Your task to perform on an android device: Open Wikipedia Image 0: 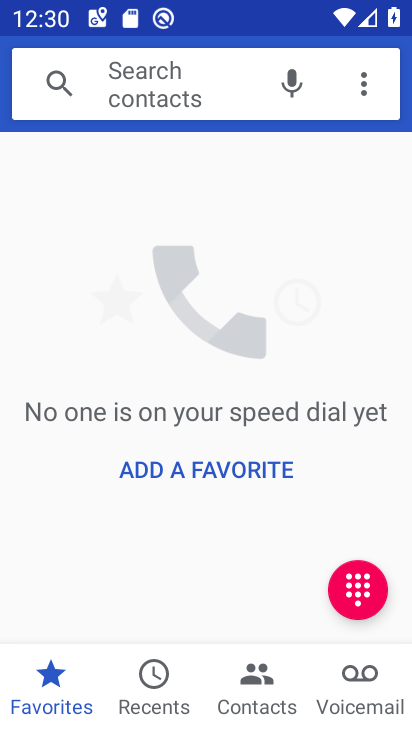
Step 0: press home button
Your task to perform on an android device: Open Wikipedia Image 1: 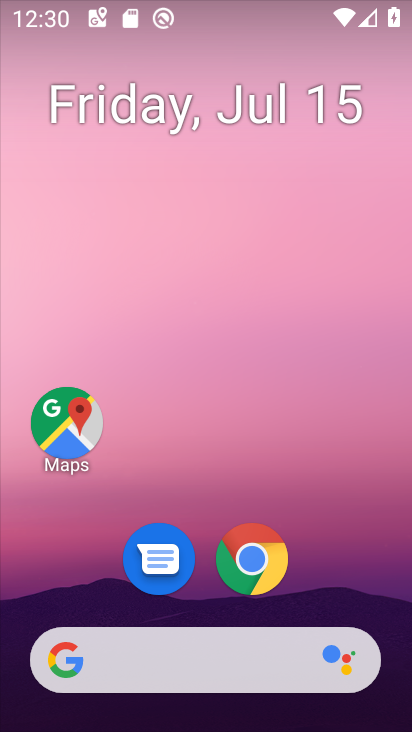
Step 1: drag from (340, 581) to (368, 200)
Your task to perform on an android device: Open Wikipedia Image 2: 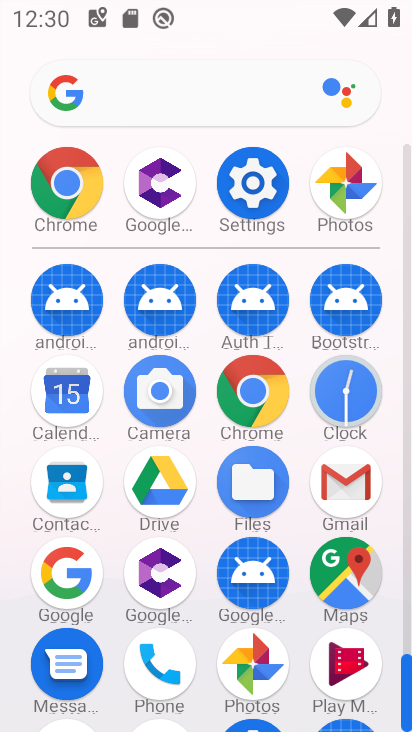
Step 2: click (275, 394)
Your task to perform on an android device: Open Wikipedia Image 3: 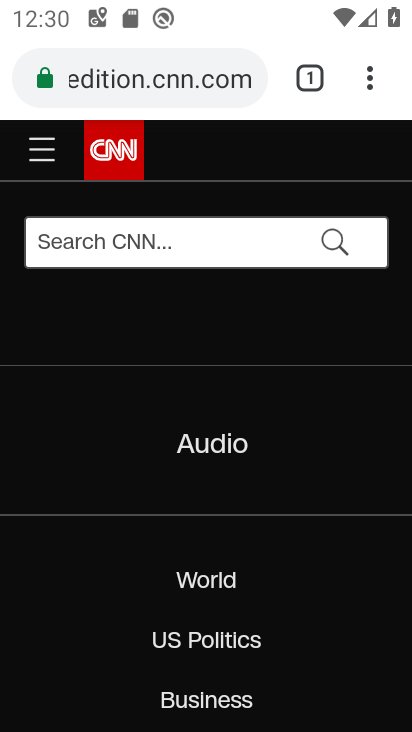
Step 3: click (213, 96)
Your task to perform on an android device: Open Wikipedia Image 4: 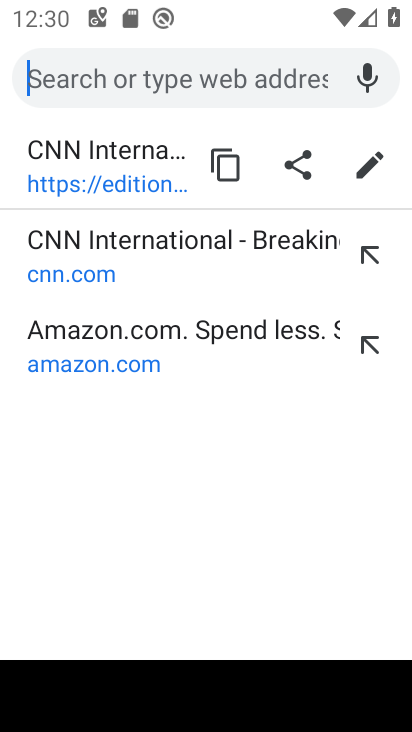
Step 4: type "wikipedia"
Your task to perform on an android device: Open Wikipedia Image 5: 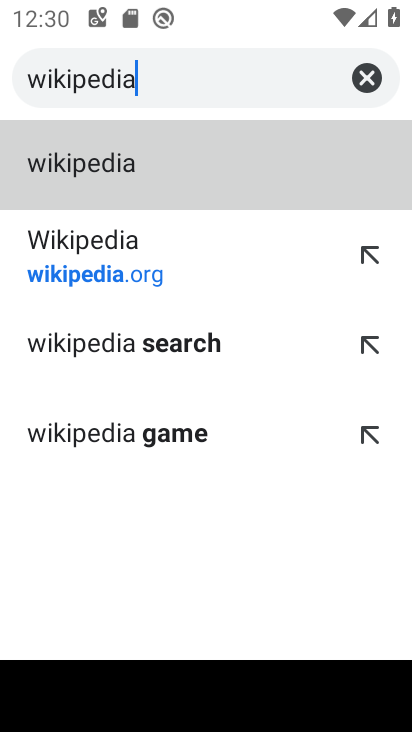
Step 5: click (147, 168)
Your task to perform on an android device: Open Wikipedia Image 6: 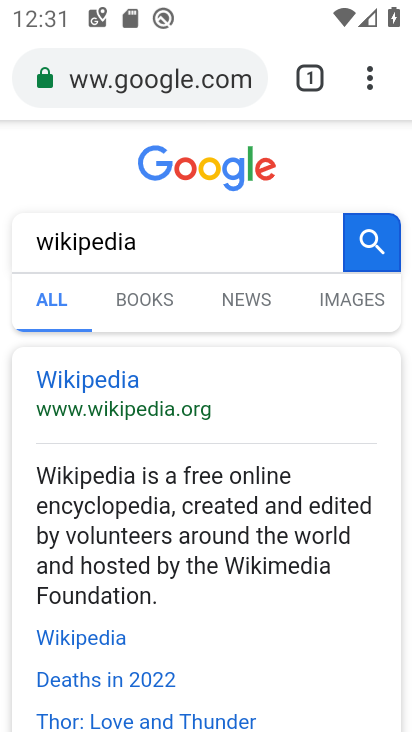
Step 6: task complete